Your task to perform on an android device: See recent photos Image 0: 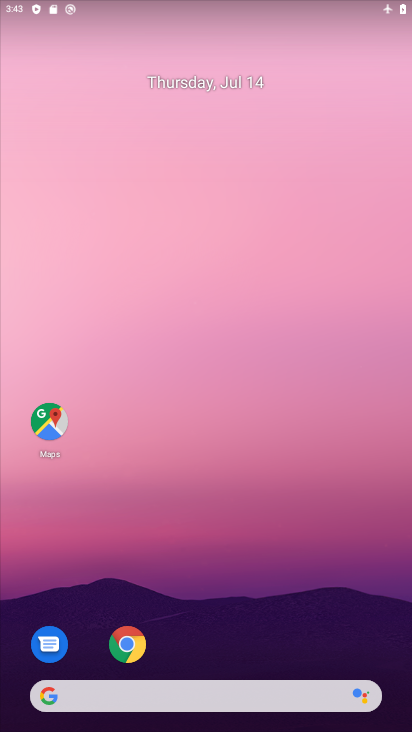
Step 0: press home button
Your task to perform on an android device: See recent photos Image 1: 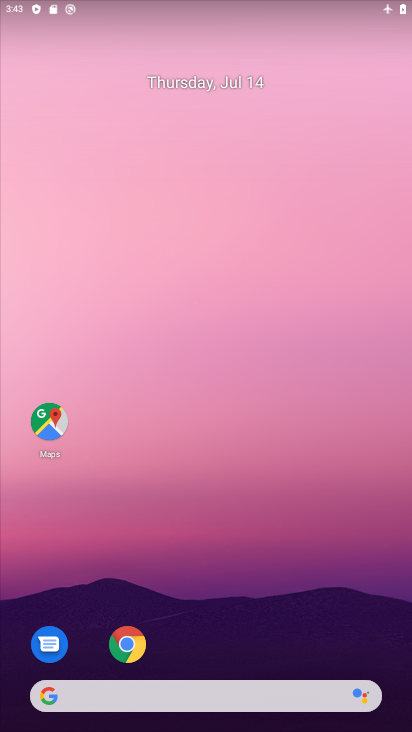
Step 1: drag from (265, 600) to (223, 0)
Your task to perform on an android device: See recent photos Image 2: 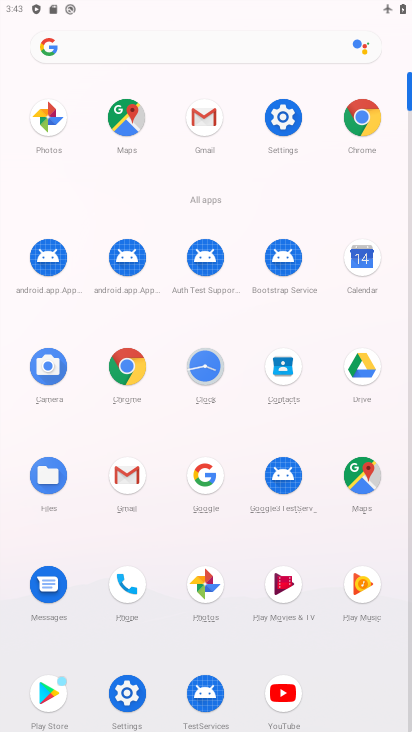
Step 2: click (204, 578)
Your task to perform on an android device: See recent photos Image 3: 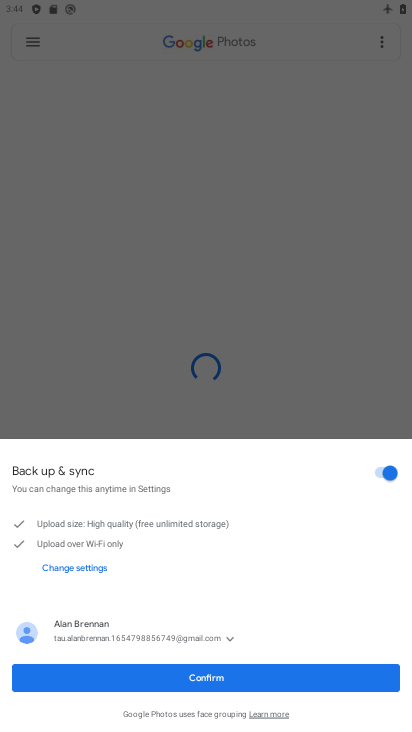
Step 3: click (240, 671)
Your task to perform on an android device: See recent photos Image 4: 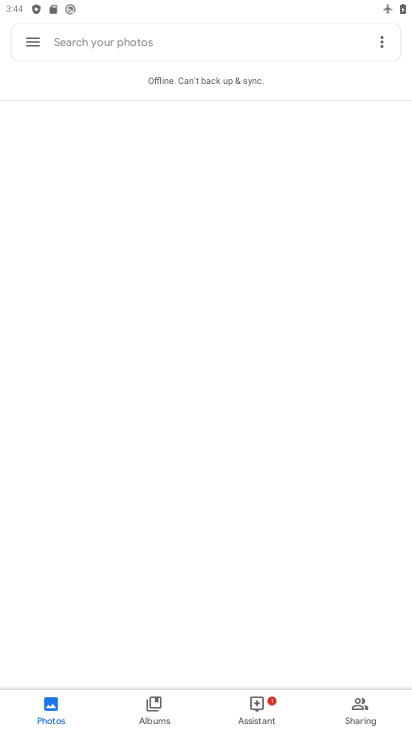
Step 4: drag from (377, 0) to (330, 360)
Your task to perform on an android device: See recent photos Image 5: 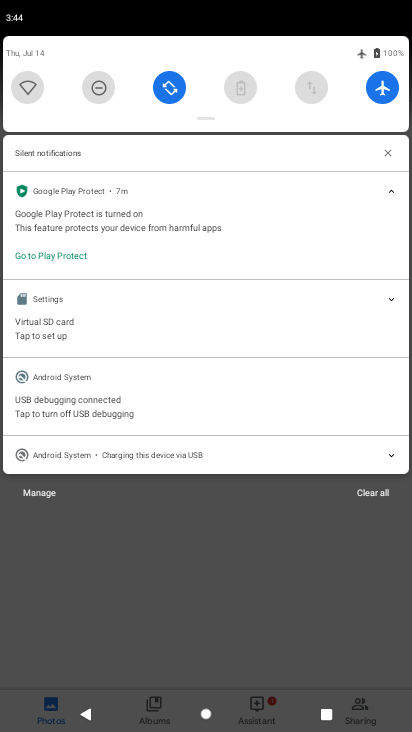
Step 5: click (371, 91)
Your task to perform on an android device: See recent photos Image 6: 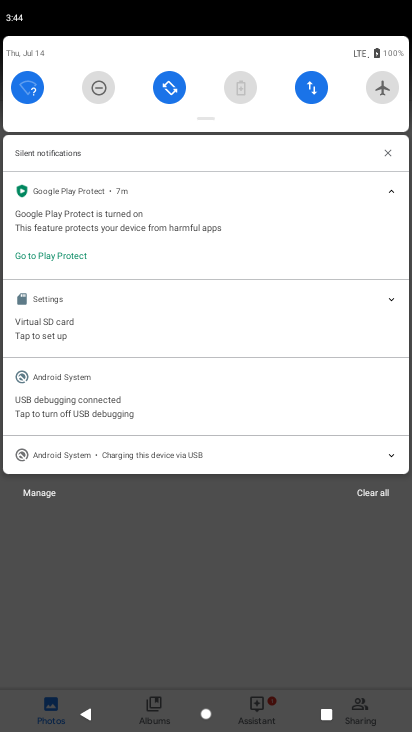
Step 6: task complete